Your task to perform on an android device: Show me popular videos on Youtube Image 0: 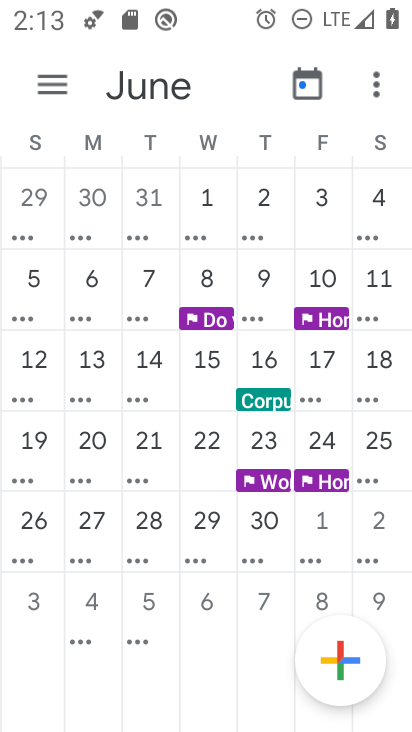
Step 0: press home button
Your task to perform on an android device: Show me popular videos on Youtube Image 1: 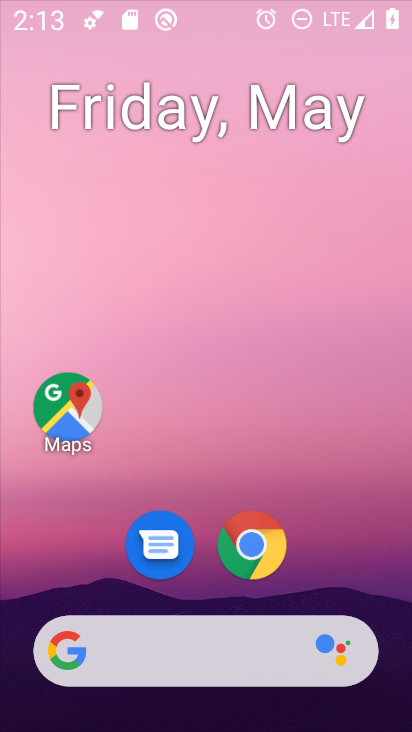
Step 1: drag from (240, 611) to (229, 321)
Your task to perform on an android device: Show me popular videos on Youtube Image 2: 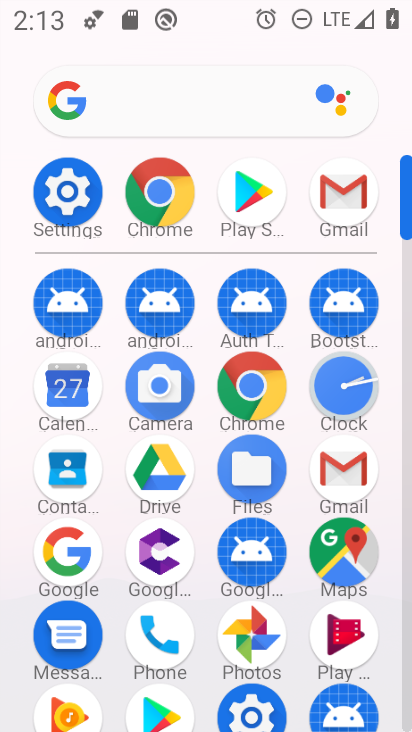
Step 2: drag from (287, 599) to (269, 213)
Your task to perform on an android device: Show me popular videos on Youtube Image 3: 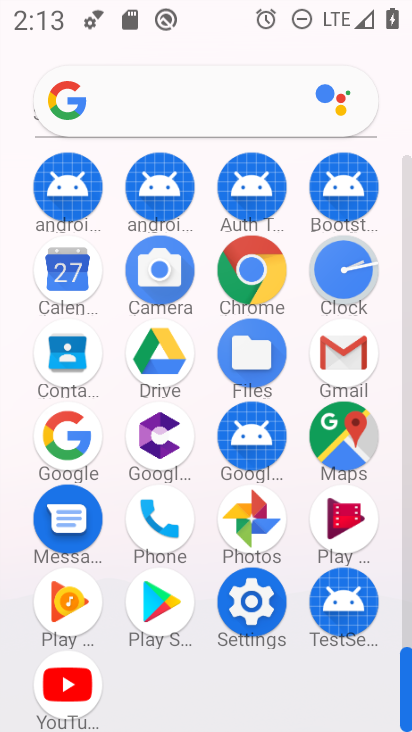
Step 3: click (79, 656)
Your task to perform on an android device: Show me popular videos on Youtube Image 4: 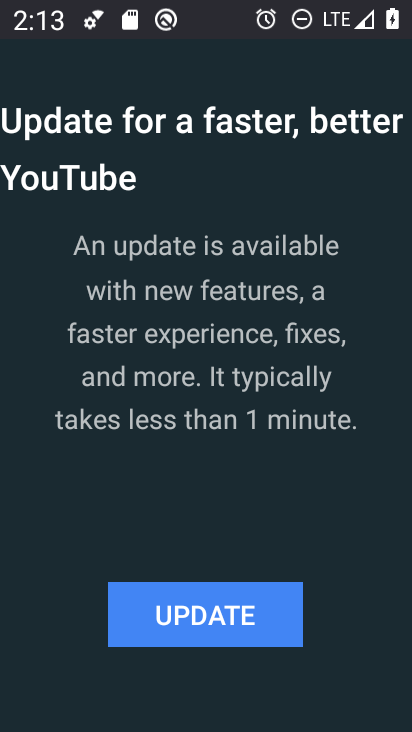
Step 4: task complete